Your task to perform on an android device: Go to accessibility settings Image 0: 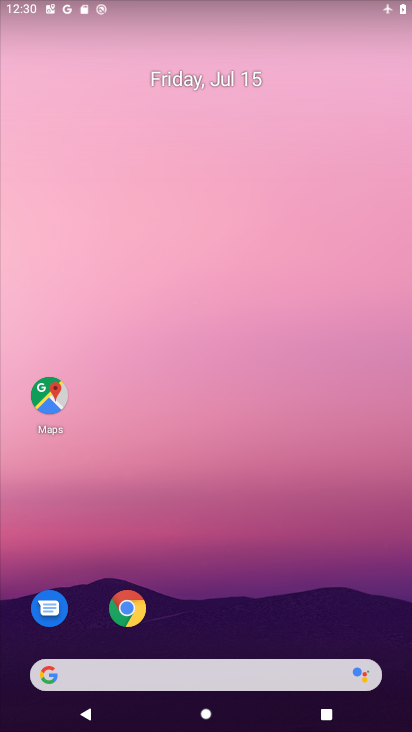
Step 0: drag from (211, 604) to (130, 70)
Your task to perform on an android device: Go to accessibility settings Image 1: 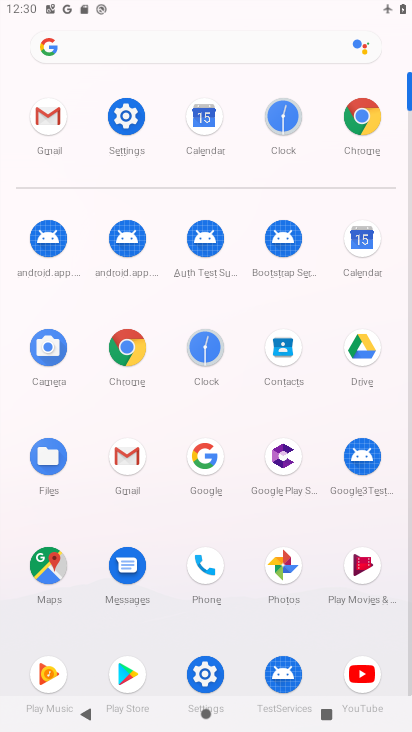
Step 1: click (120, 105)
Your task to perform on an android device: Go to accessibility settings Image 2: 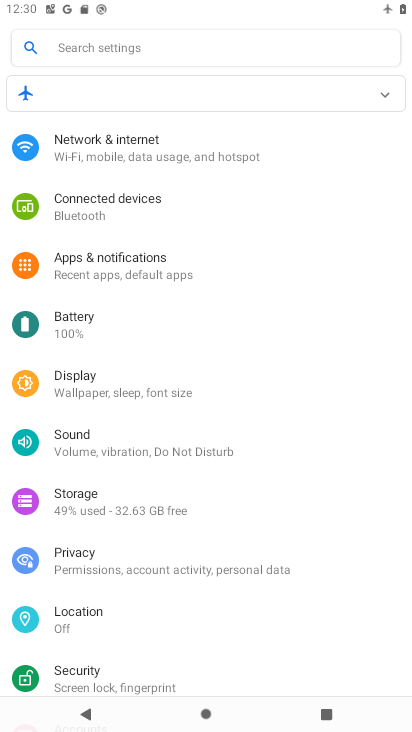
Step 2: drag from (205, 643) to (180, 275)
Your task to perform on an android device: Go to accessibility settings Image 3: 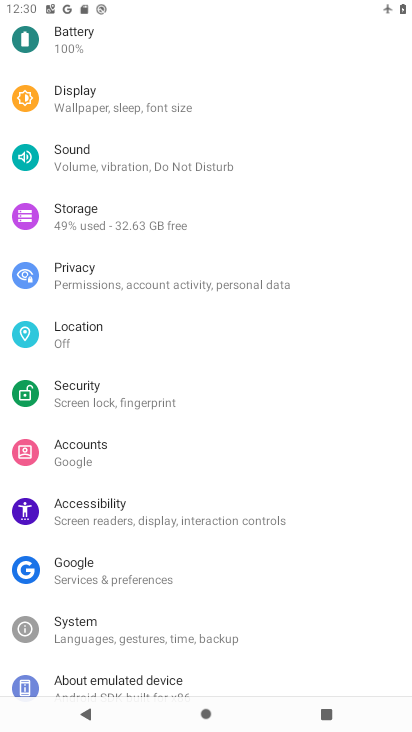
Step 3: click (87, 505)
Your task to perform on an android device: Go to accessibility settings Image 4: 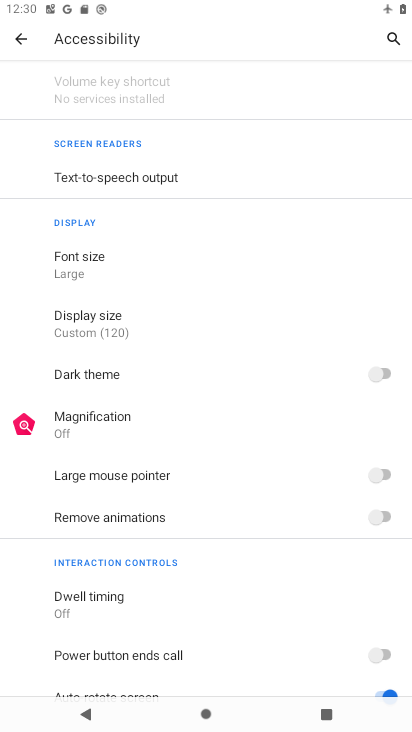
Step 4: task complete